Your task to perform on an android device: Search for rayovac triple a on newegg.com, select the first entry, and add it to the cart. Image 0: 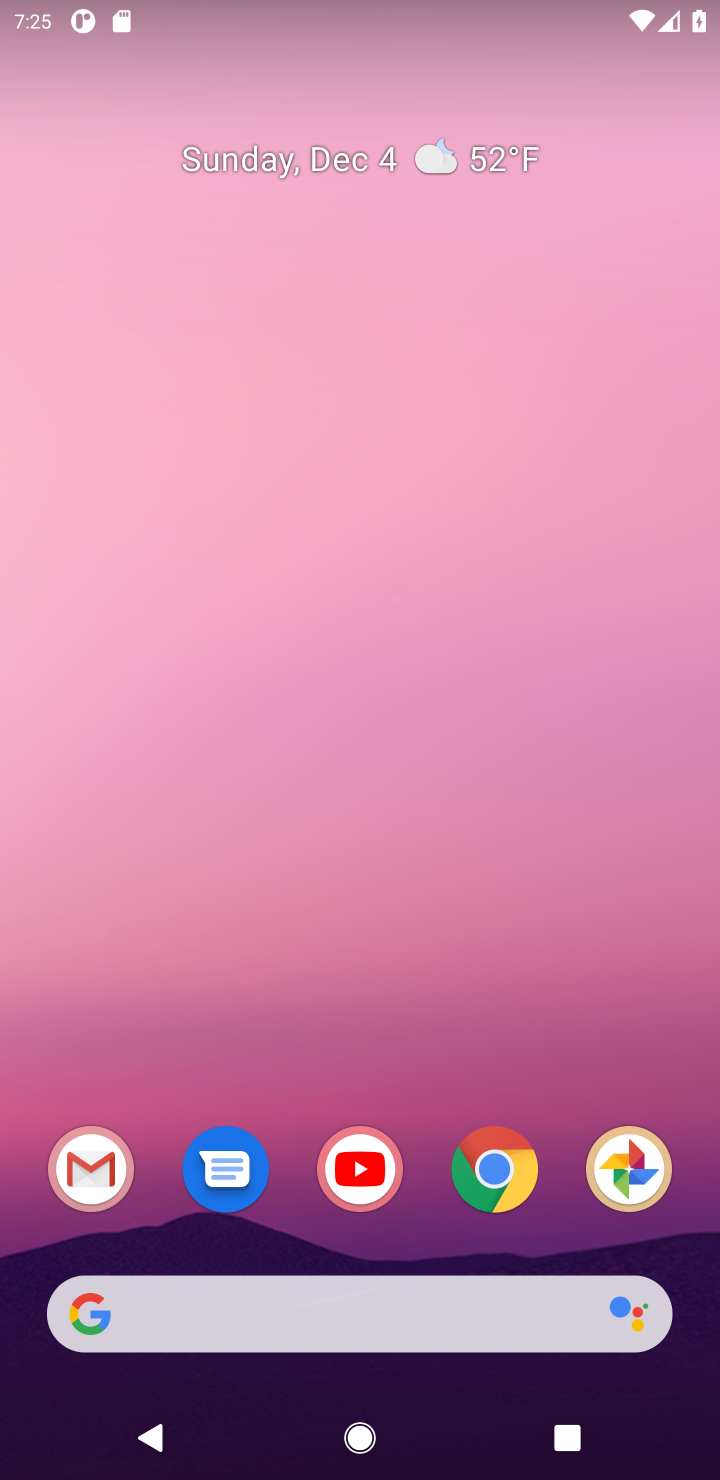
Step 0: click (495, 1154)
Your task to perform on an android device: Search for rayovac triple a on newegg.com, select the first entry, and add it to the cart. Image 1: 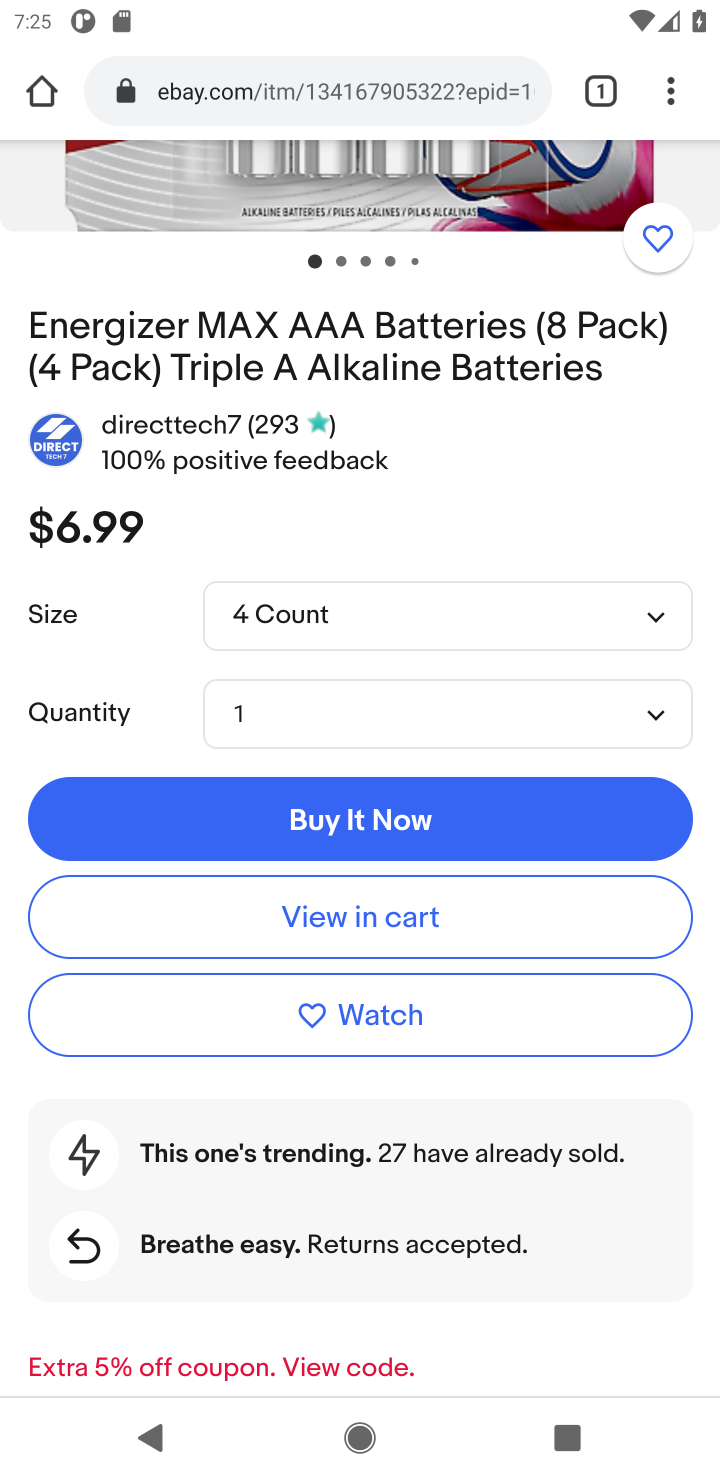
Step 1: click (338, 95)
Your task to perform on an android device: Search for rayovac triple a on newegg.com, select the first entry, and add it to the cart. Image 2: 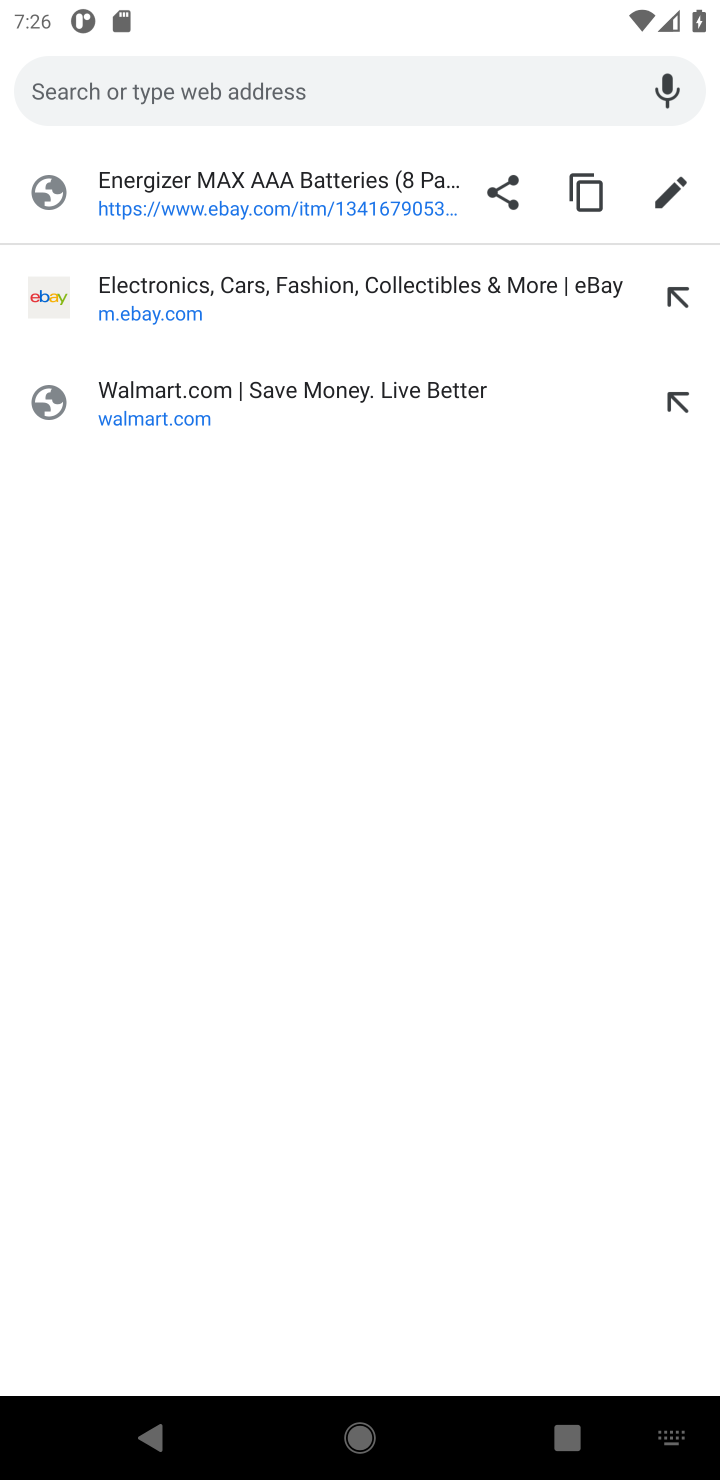
Step 2: type "newegg"
Your task to perform on an android device: Search for rayovac triple a on newegg.com, select the first entry, and add it to the cart. Image 3: 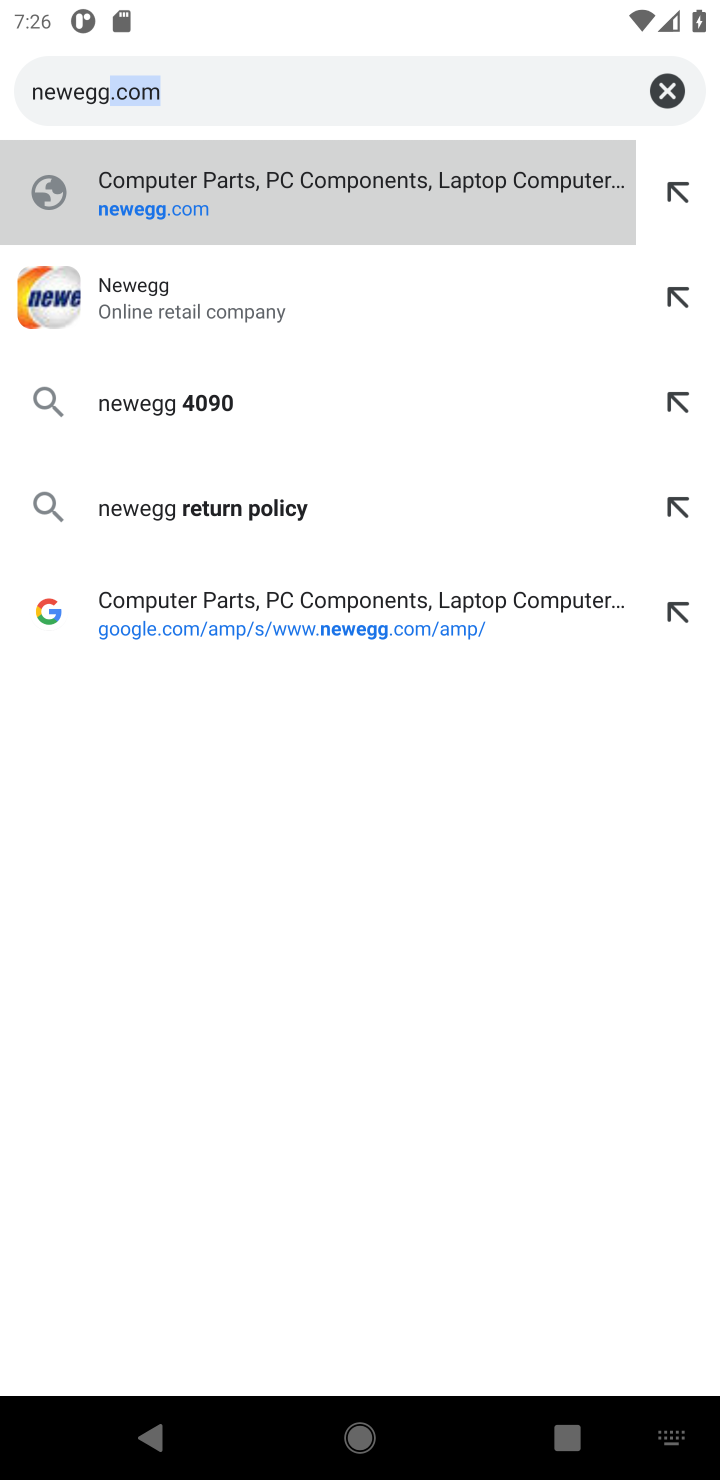
Step 3: click (202, 296)
Your task to perform on an android device: Search for rayovac triple a on newegg.com, select the first entry, and add it to the cart. Image 4: 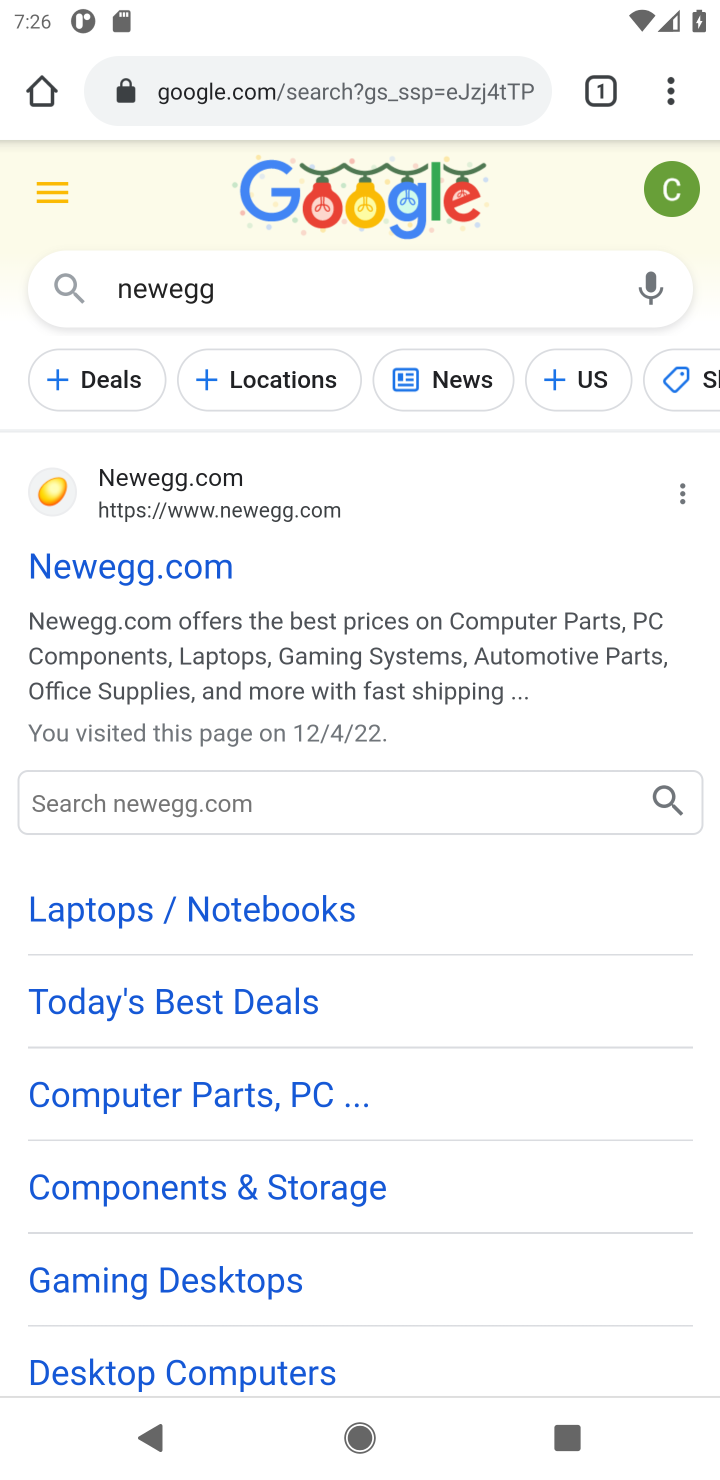
Step 4: click (114, 571)
Your task to perform on an android device: Search for rayovac triple a on newegg.com, select the first entry, and add it to the cart. Image 5: 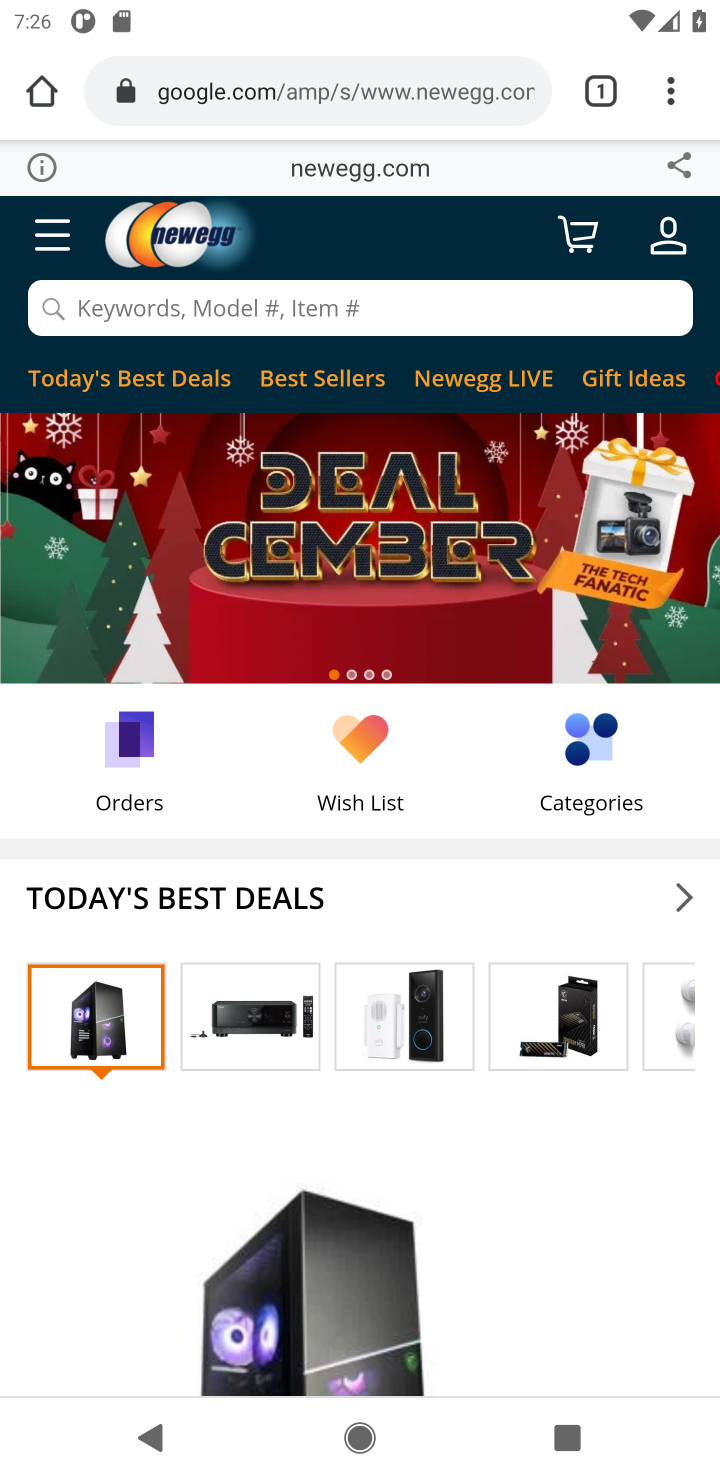
Step 5: click (273, 298)
Your task to perform on an android device: Search for rayovac triple a on newegg.com, select the first entry, and add it to the cart. Image 6: 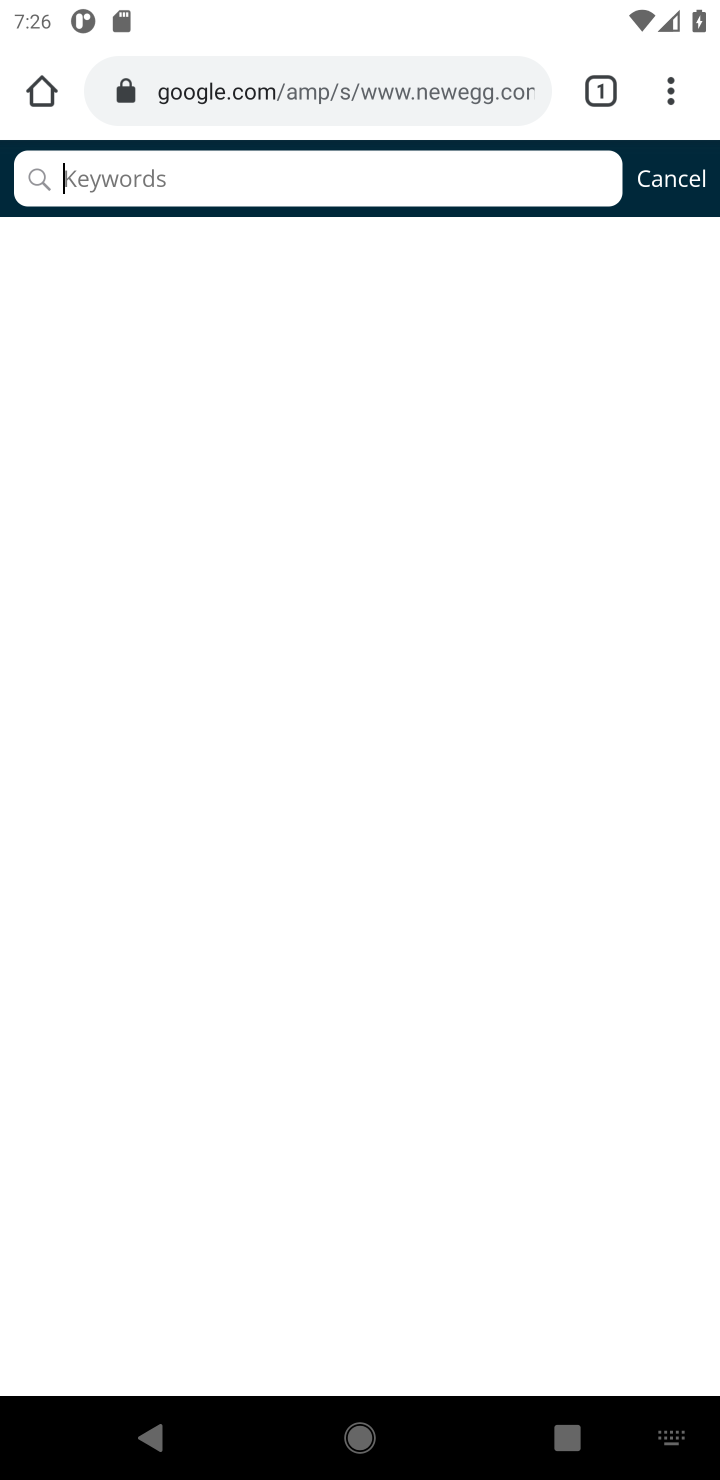
Step 6: type "rayovac triple a"
Your task to perform on an android device: Search for rayovac triple a on newegg.com, select the first entry, and add it to the cart. Image 7: 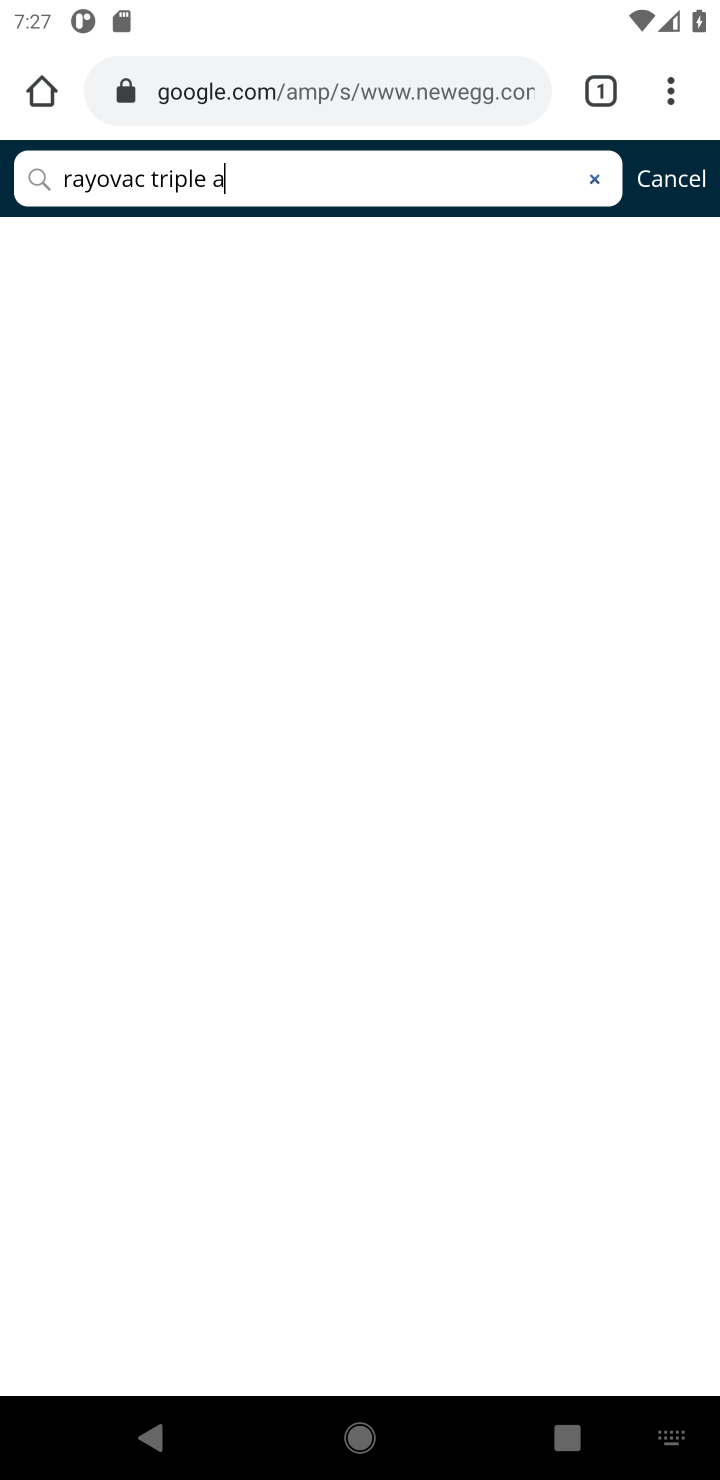
Step 7: task complete